Your task to perform on an android device: Open accessibility settings Image 0: 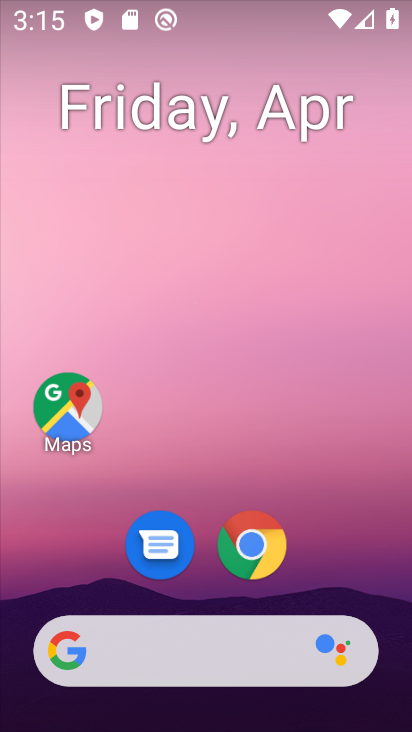
Step 0: drag from (331, 387) to (343, 23)
Your task to perform on an android device: Open accessibility settings Image 1: 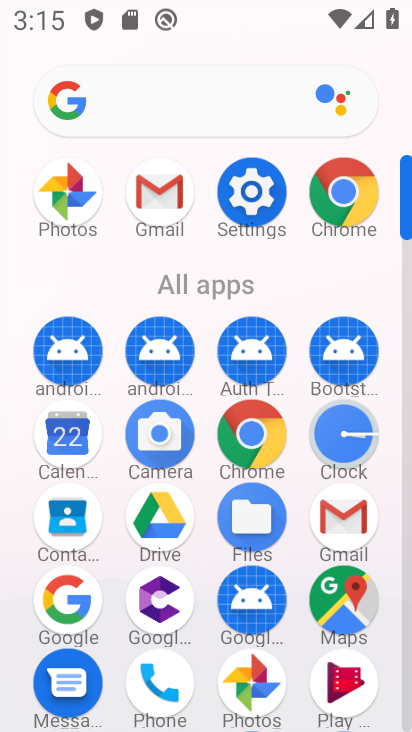
Step 1: click (407, 712)
Your task to perform on an android device: Open accessibility settings Image 2: 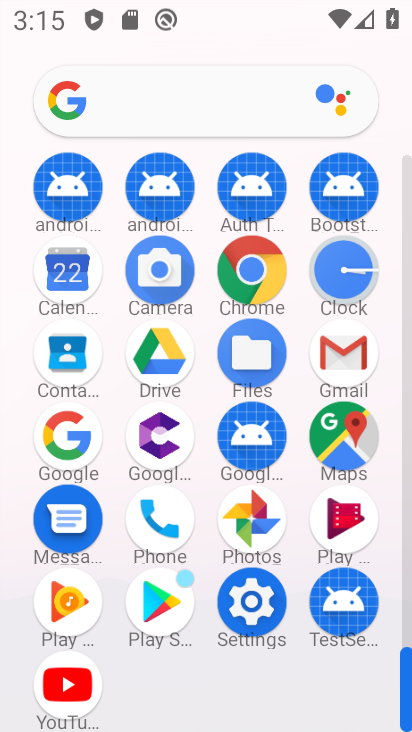
Step 2: click (248, 601)
Your task to perform on an android device: Open accessibility settings Image 3: 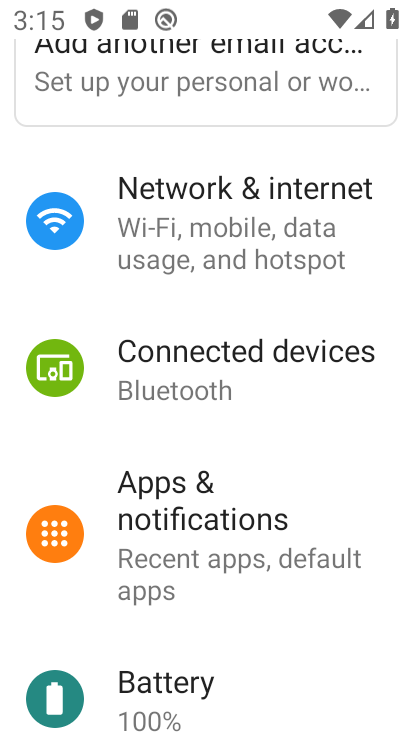
Step 3: drag from (353, 667) to (367, 224)
Your task to perform on an android device: Open accessibility settings Image 4: 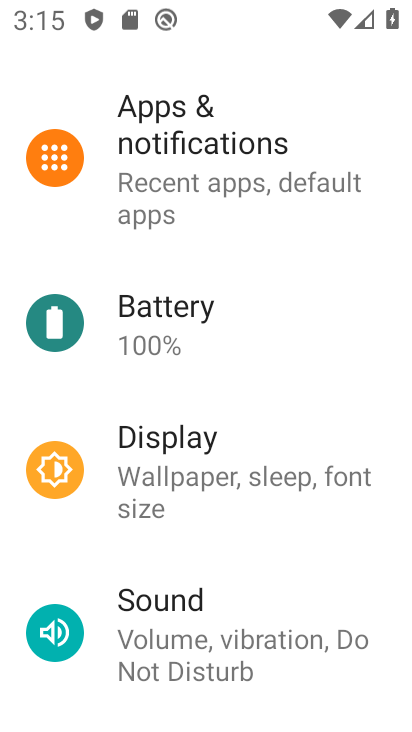
Step 4: drag from (362, 596) to (359, 164)
Your task to perform on an android device: Open accessibility settings Image 5: 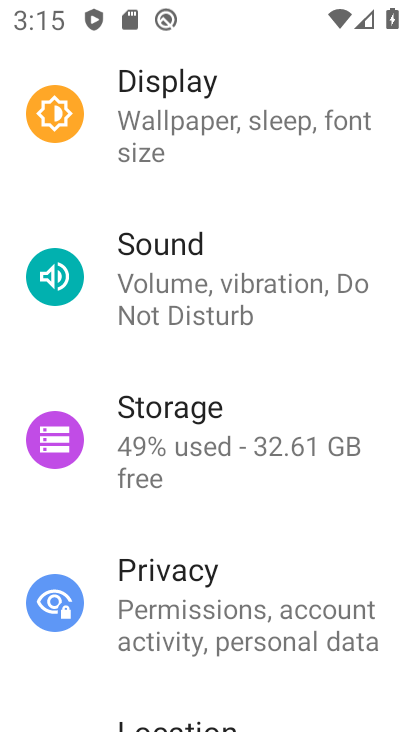
Step 5: drag from (340, 593) to (362, 182)
Your task to perform on an android device: Open accessibility settings Image 6: 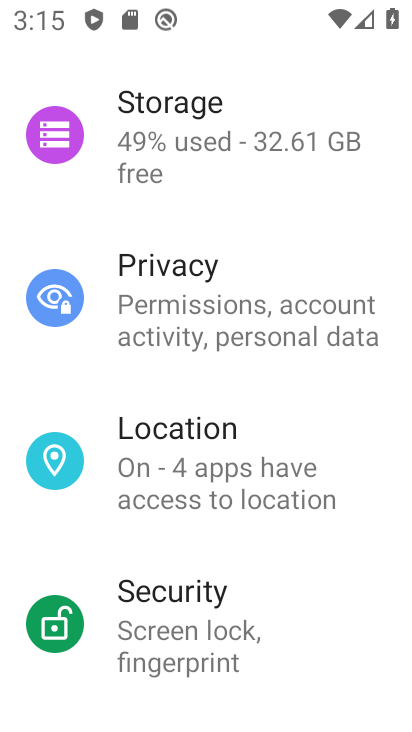
Step 6: drag from (340, 572) to (375, 163)
Your task to perform on an android device: Open accessibility settings Image 7: 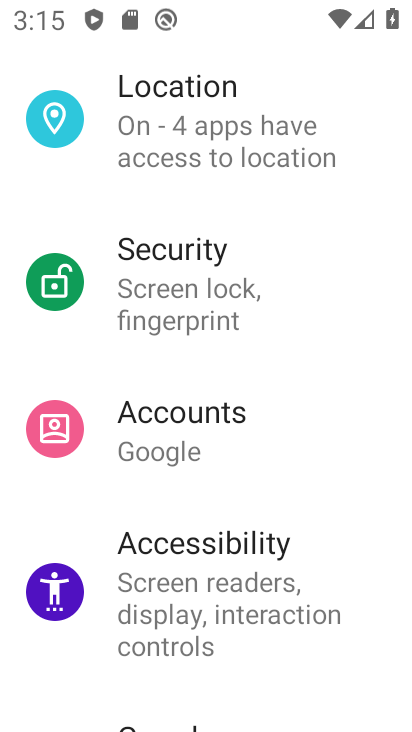
Step 7: click (154, 623)
Your task to perform on an android device: Open accessibility settings Image 8: 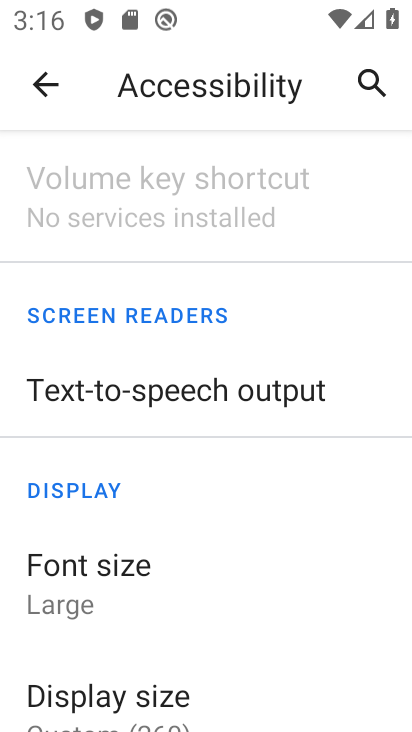
Step 8: task complete